Your task to perform on an android device: Open Chrome and go to settings Image 0: 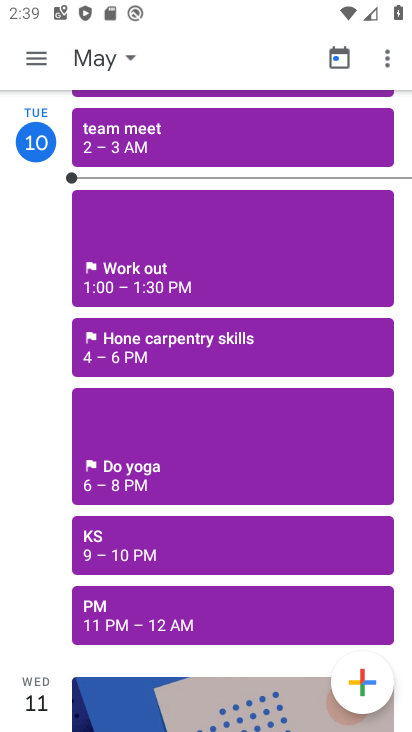
Step 0: press home button
Your task to perform on an android device: Open Chrome and go to settings Image 1: 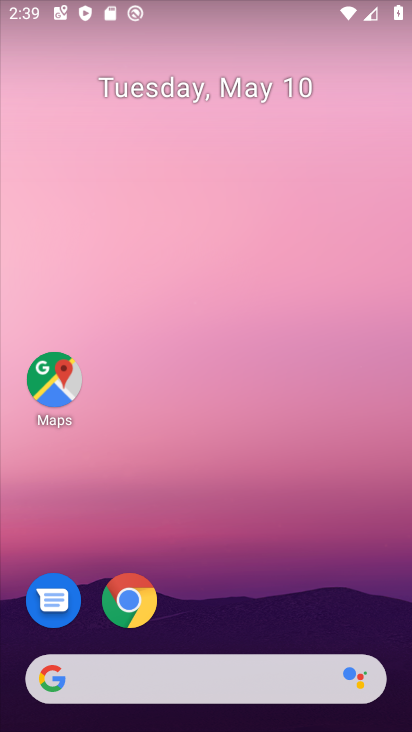
Step 1: drag from (155, 555) to (214, 195)
Your task to perform on an android device: Open Chrome and go to settings Image 2: 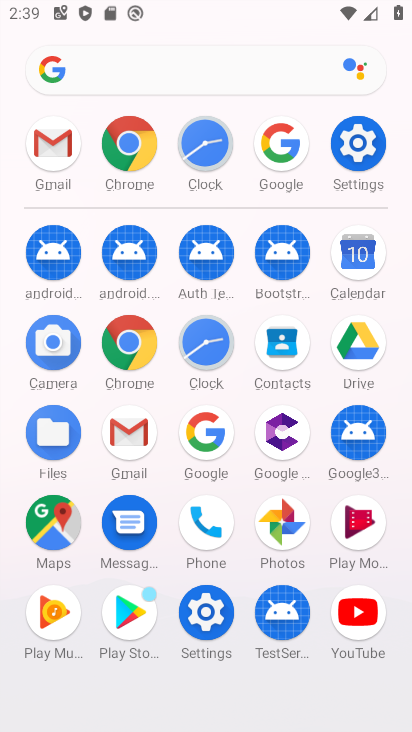
Step 2: click (97, 186)
Your task to perform on an android device: Open Chrome and go to settings Image 3: 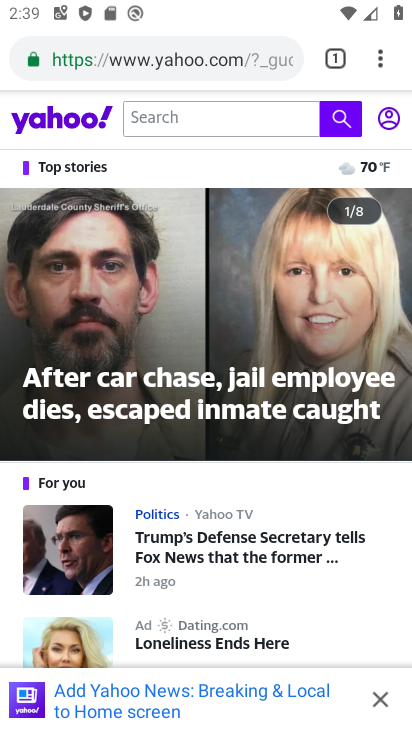
Step 3: click (372, 66)
Your task to perform on an android device: Open Chrome and go to settings Image 4: 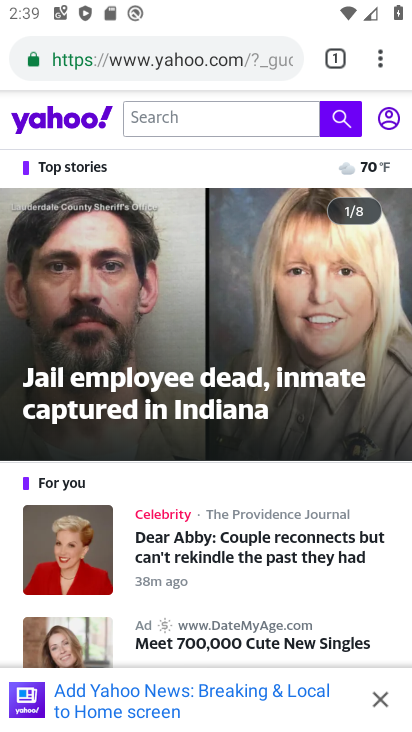
Step 4: click (369, 66)
Your task to perform on an android device: Open Chrome and go to settings Image 5: 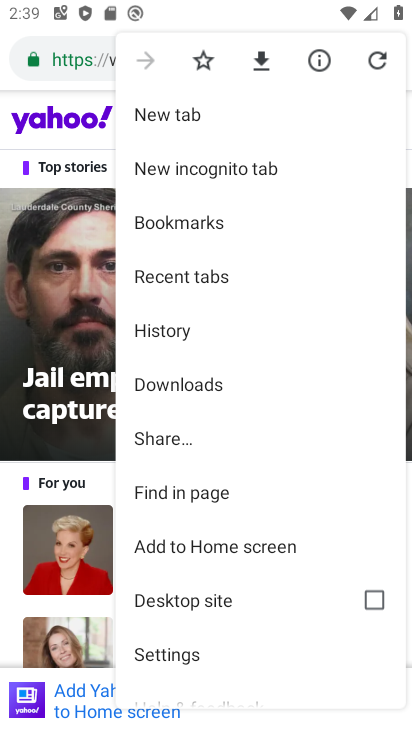
Step 5: drag from (233, 538) to (238, 203)
Your task to perform on an android device: Open Chrome and go to settings Image 6: 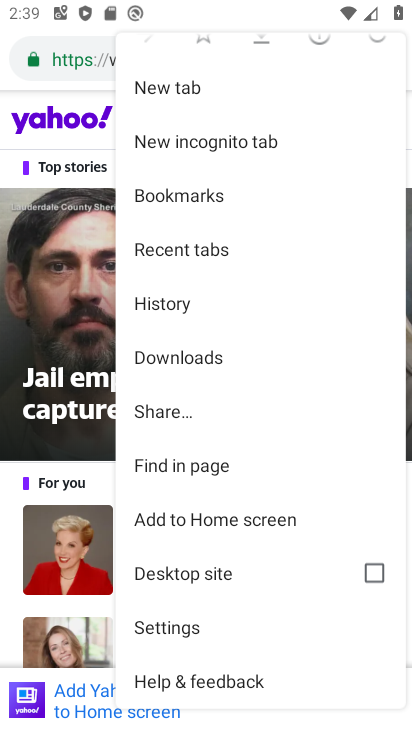
Step 6: click (225, 635)
Your task to perform on an android device: Open Chrome and go to settings Image 7: 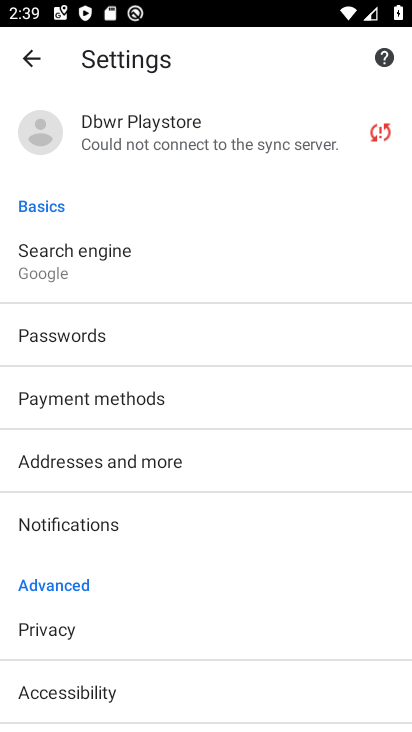
Step 7: task complete